Your task to perform on an android device: Add "bose soundsport free" to the cart on bestbuy.com, then select checkout. Image 0: 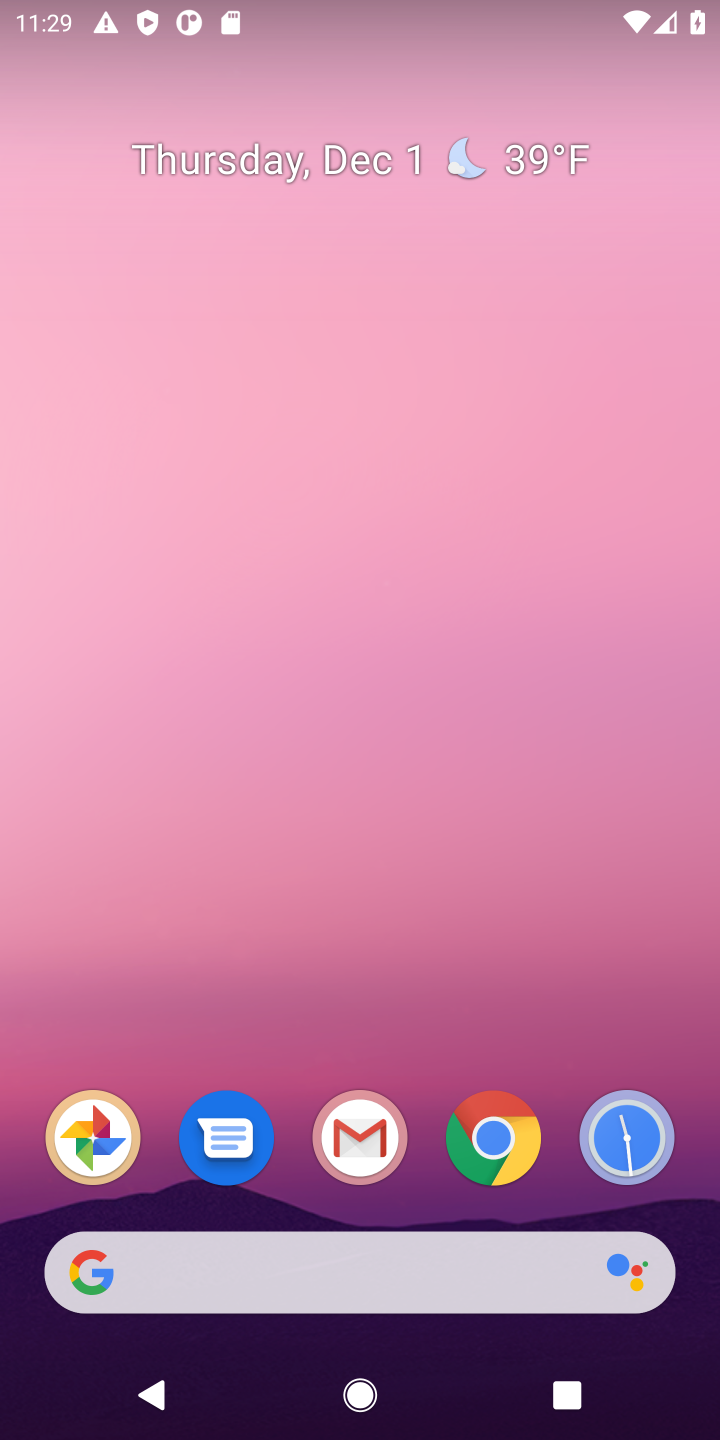
Step 0: drag from (407, 760) to (660, 787)
Your task to perform on an android device: Add "bose soundsport free" to the cart on bestbuy.com, then select checkout. Image 1: 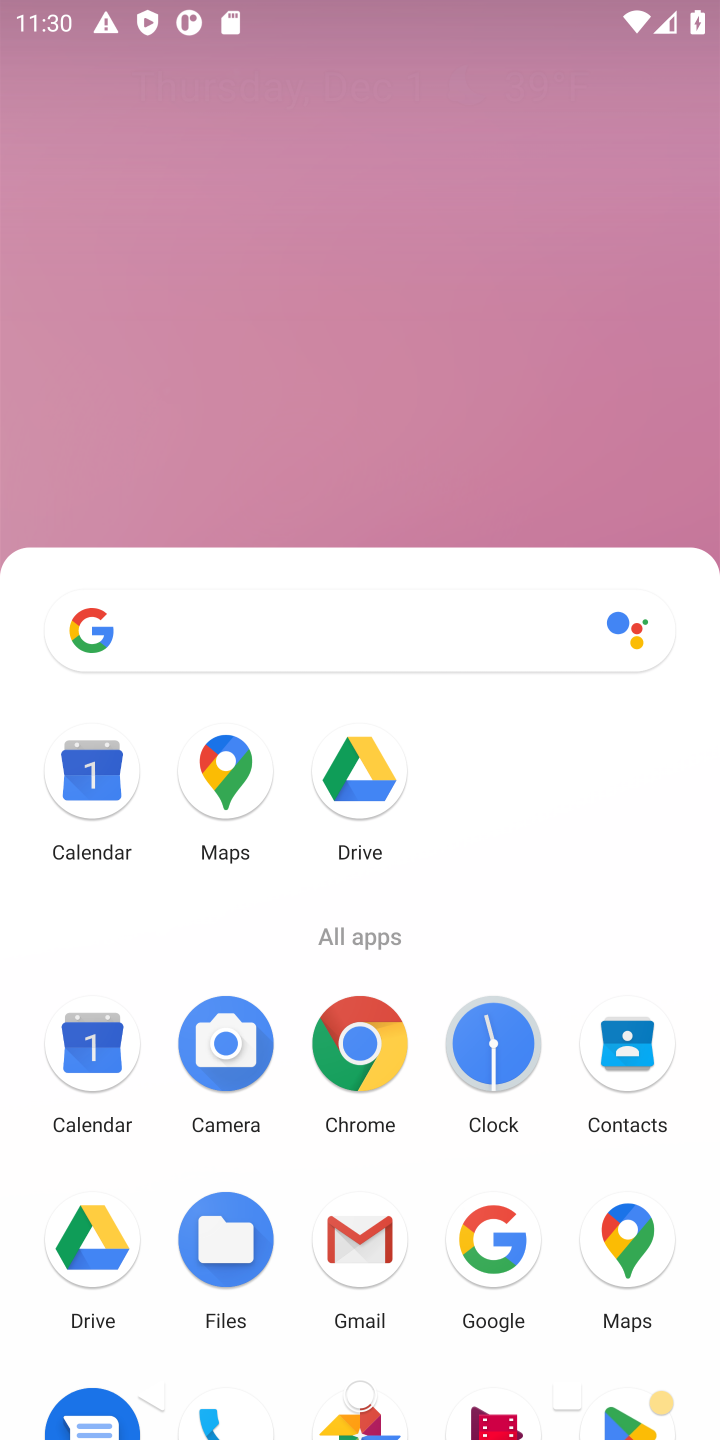
Step 1: drag from (473, 956) to (487, 385)
Your task to perform on an android device: Add "bose soundsport free" to the cart on bestbuy.com, then select checkout. Image 2: 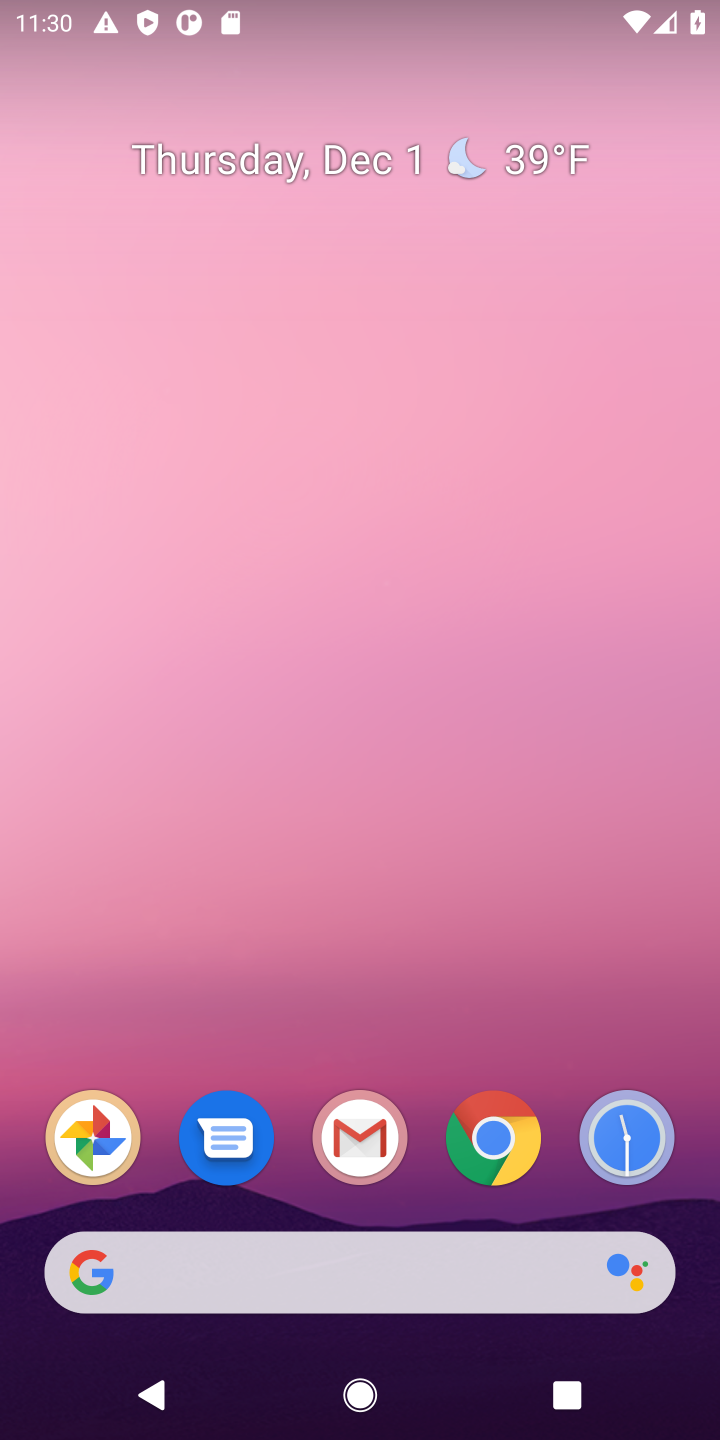
Step 2: drag from (424, 1184) to (454, 134)
Your task to perform on an android device: Add "bose soundsport free" to the cart on bestbuy.com, then select checkout. Image 3: 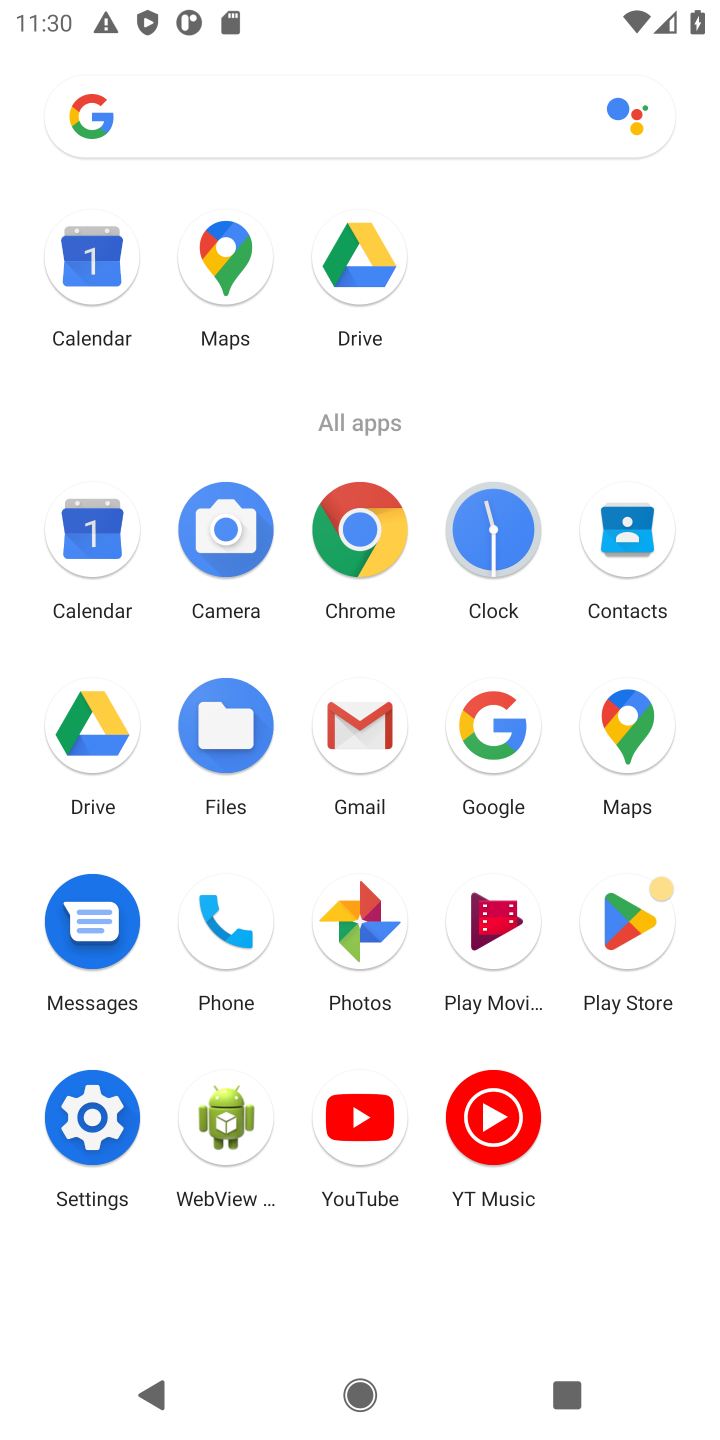
Step 3: click (452, 756)
Your task to perform on an android device: Add "bose soundsport free" to the cart on bestbuy.com, then select checkout. Image 4: 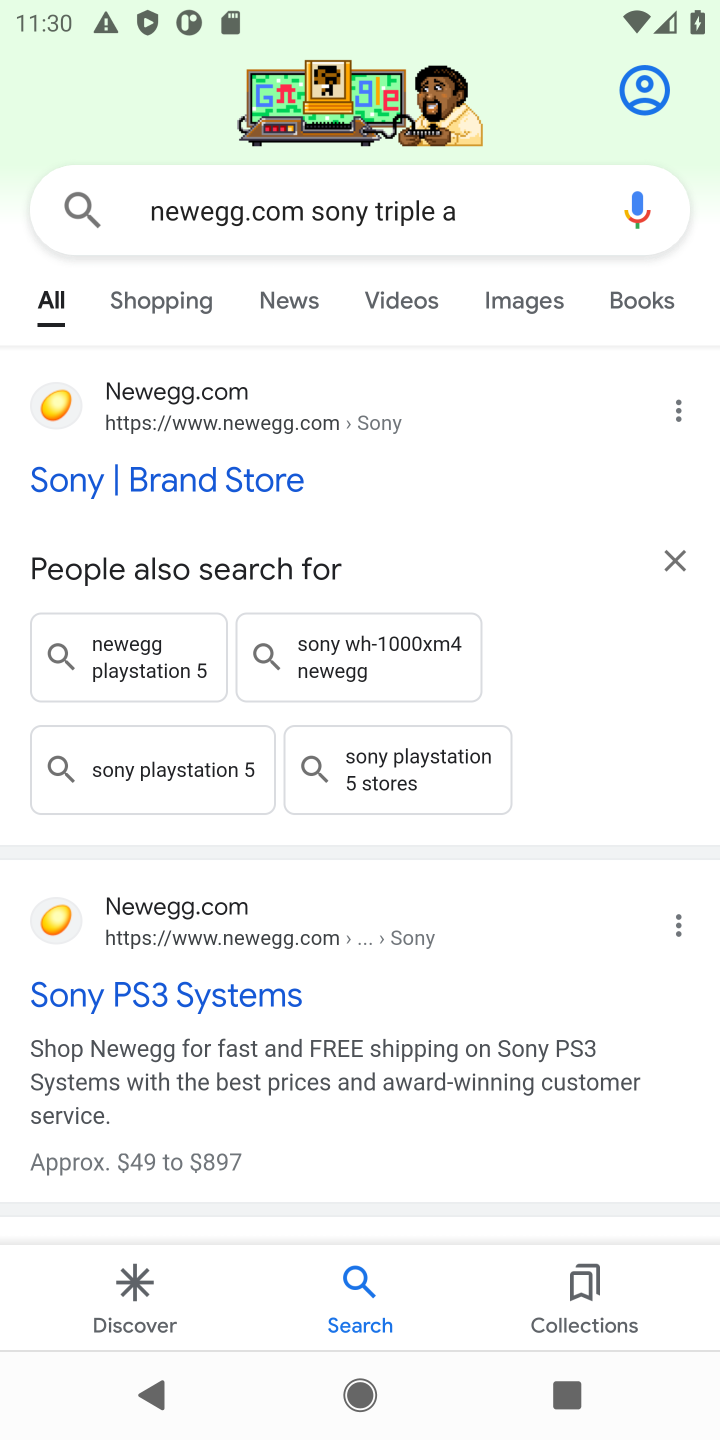
Step 4: click (528, 239)
Your task to perform on an android device: Add "bose soundsport free" to the cart on bestbuy.com, then select checkout. Image 5: 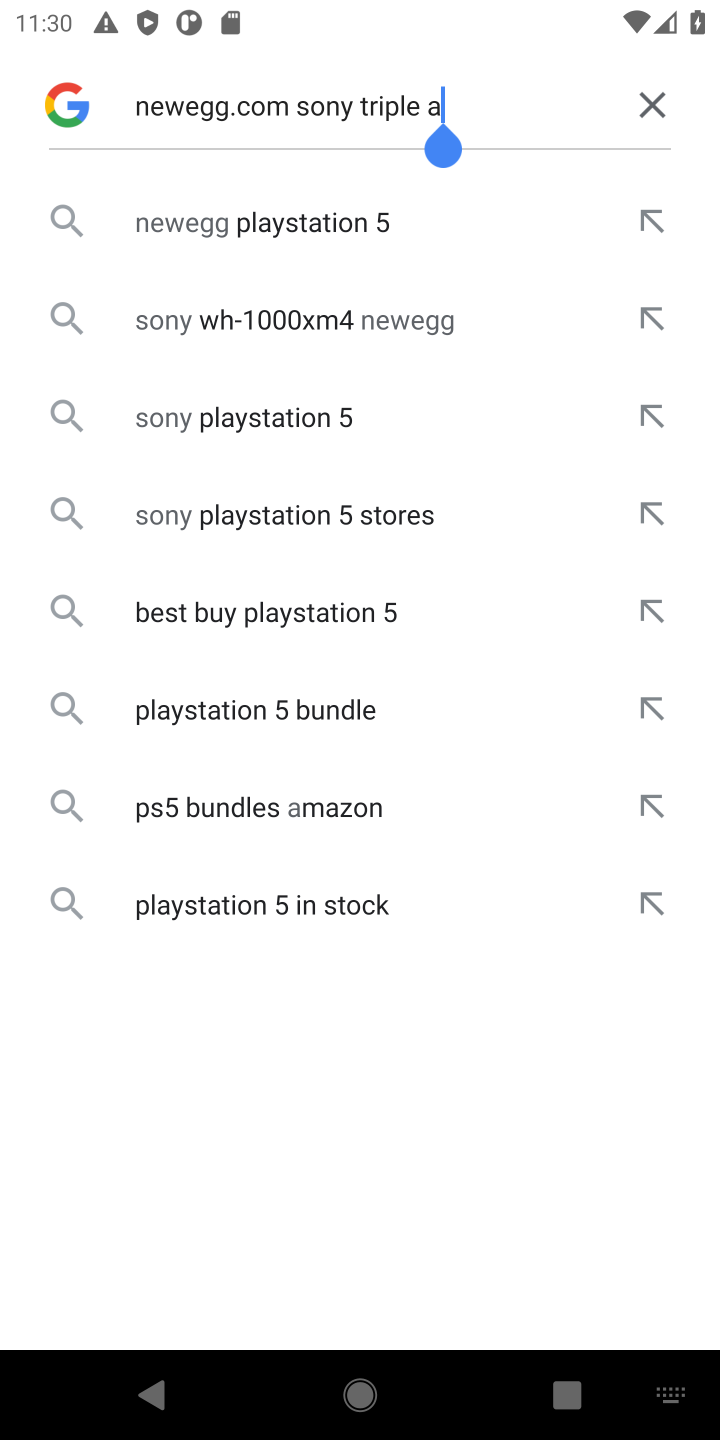
Step 5: click (654, 91)
Your task to perform on an android device: Add "bose soundsport free" to the cart on bestbuy.com, then select checkout. Image 6: 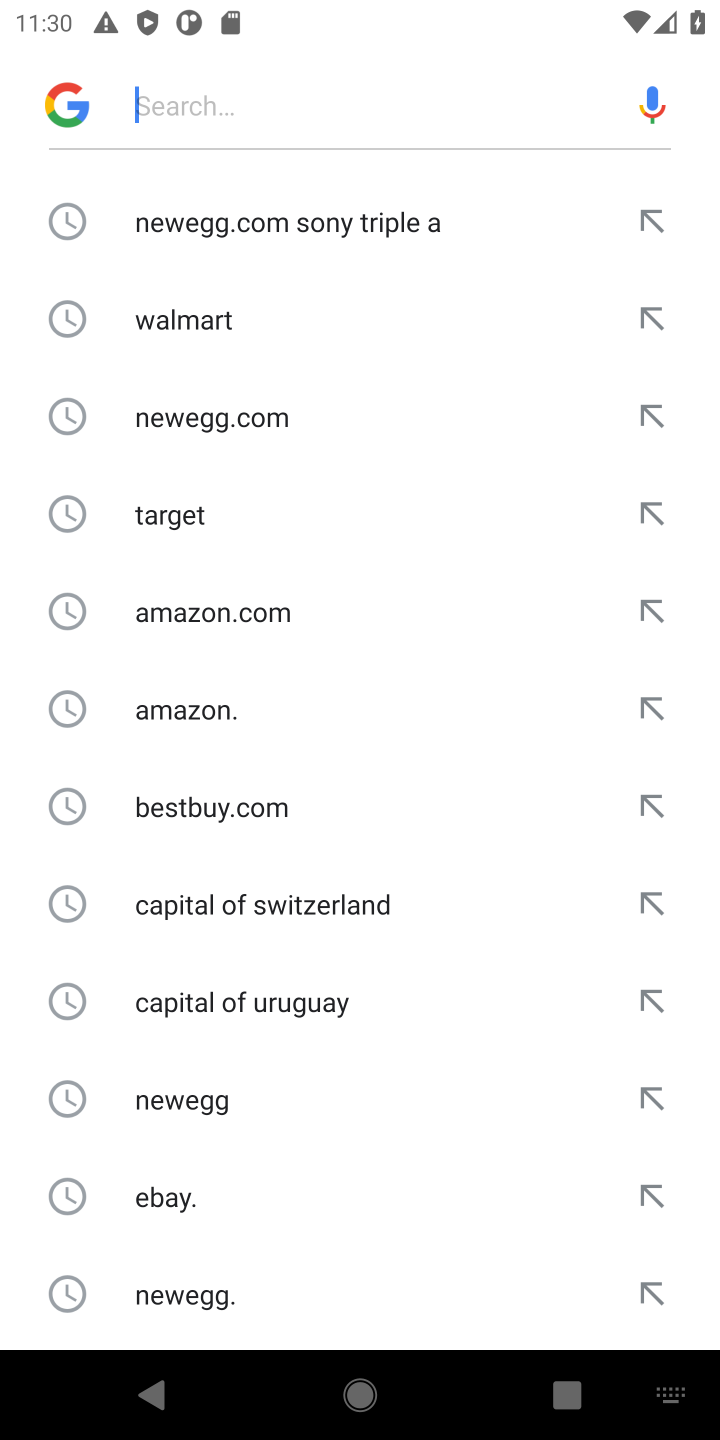
Step 6: type "bestbuy.com"
Your task to perform on an android device: Add "bose soundsport free" to the cart on bestbuy.com, then select checkout. Image 7: 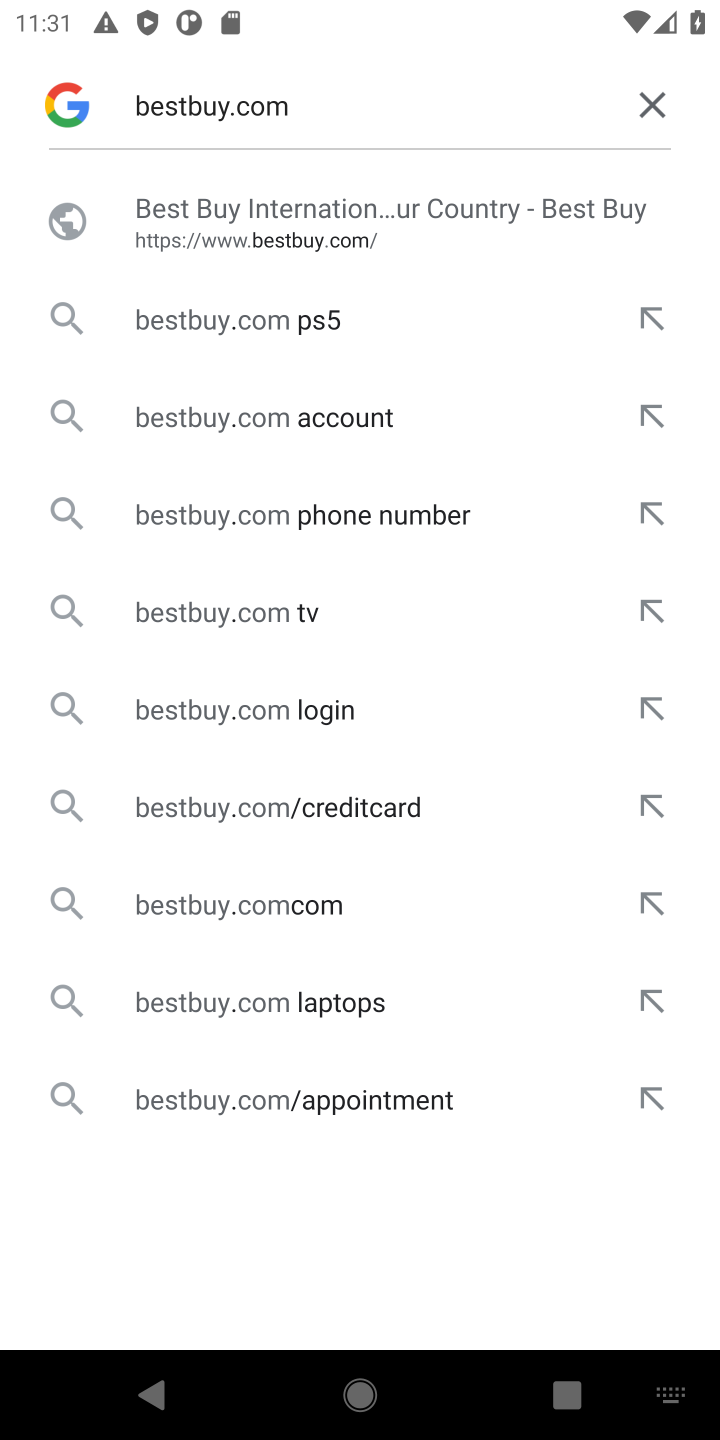
Step 7: click (392, 244)
Your task to perform on an android device: Add "bose soundsport free" to the cart on bestbuy.com, then select checkout. Image 8: 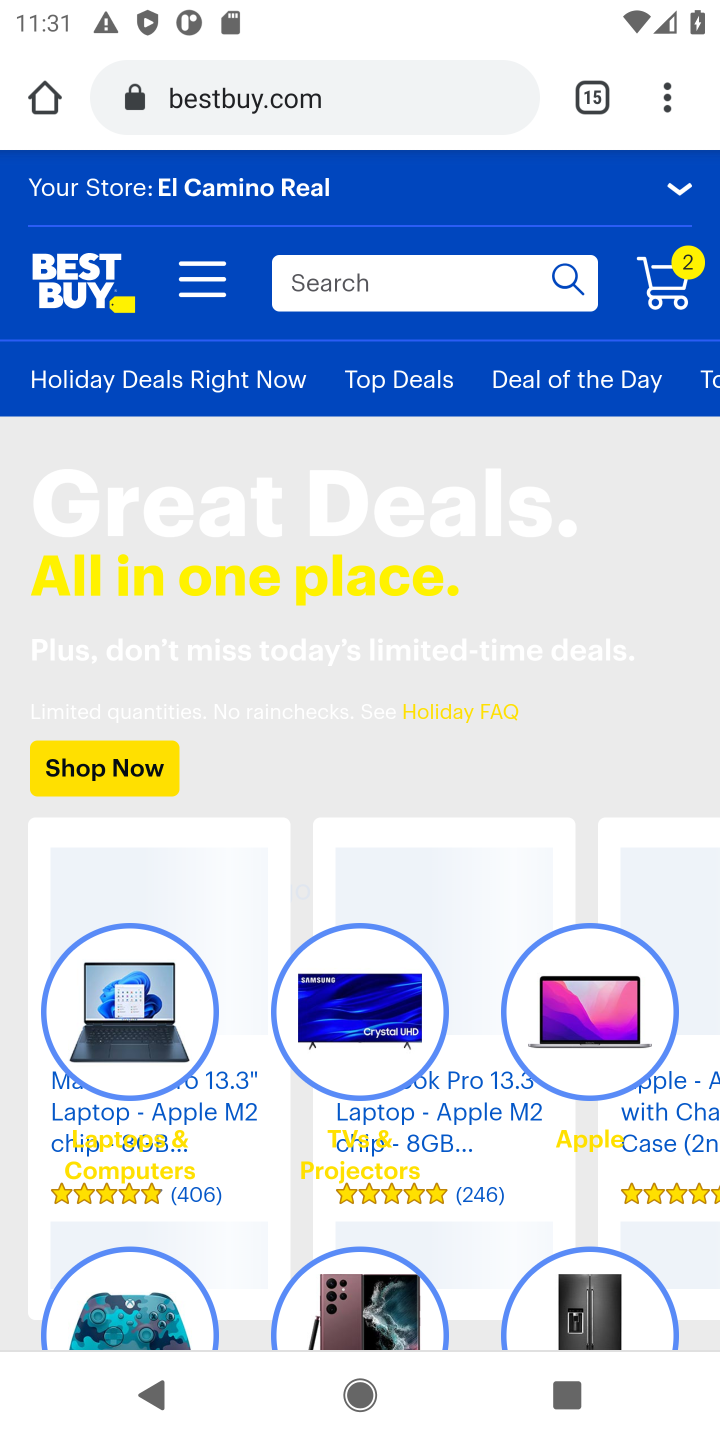
Step 8: click (682, 288)
Your task to perform on an android device: Add "bose soundsport free" to the cart on bestbuy.com, then select checkout. Image 9: 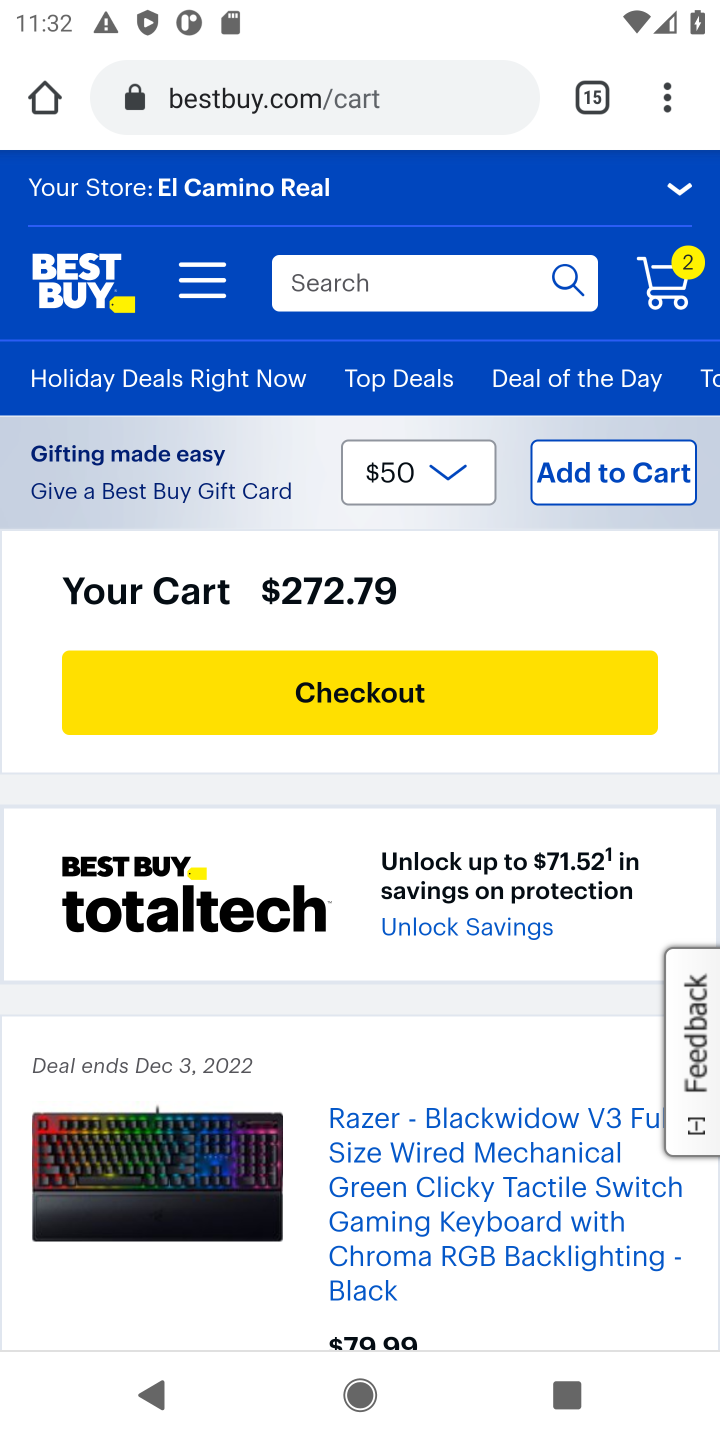
Step 9: click (319, 283)
Your task to perform on an android device: Add "bose soundsport free" to the cart on bestbuy.com, then select checkout. Image 10: 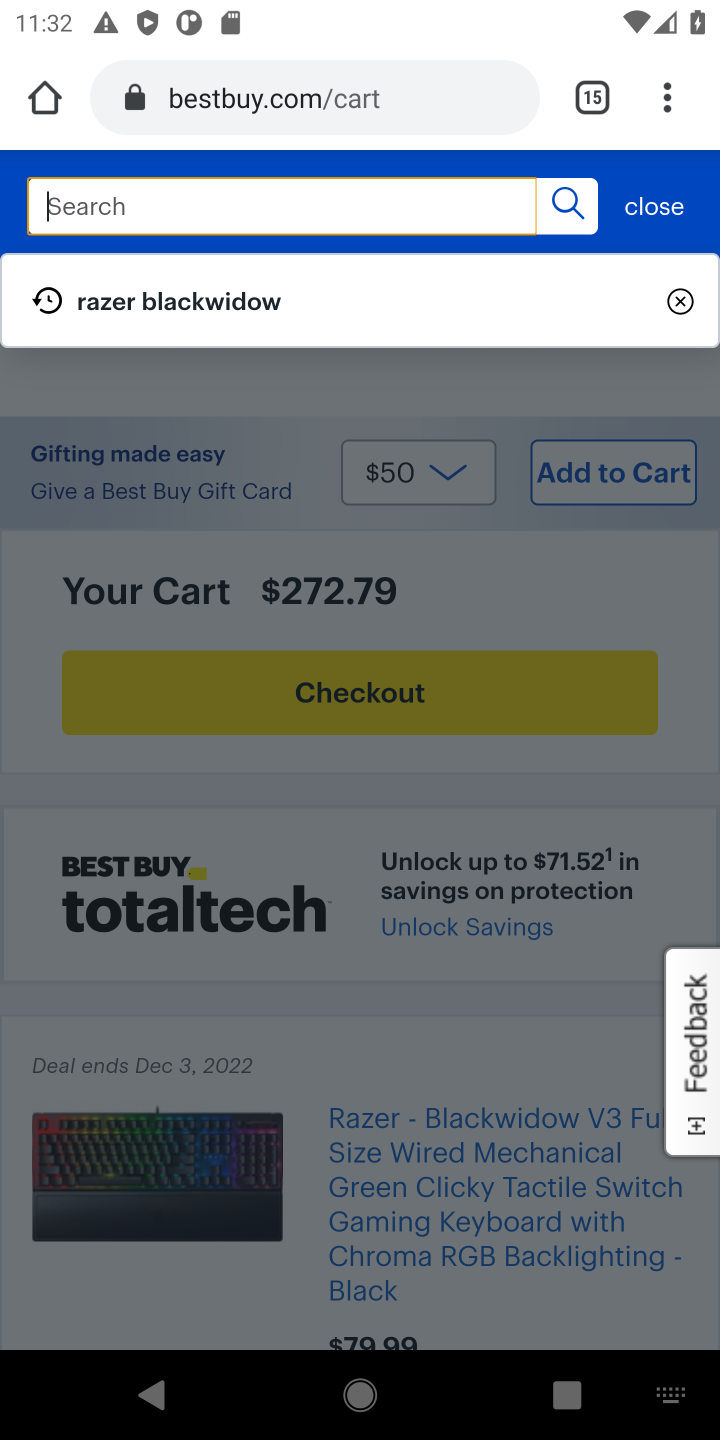
Step 10: type "bose soundsport free"
Your task to perform on an android device: Add "bose soundsport free" to the cart on bestbuy.com, then select checkout. Image 11: 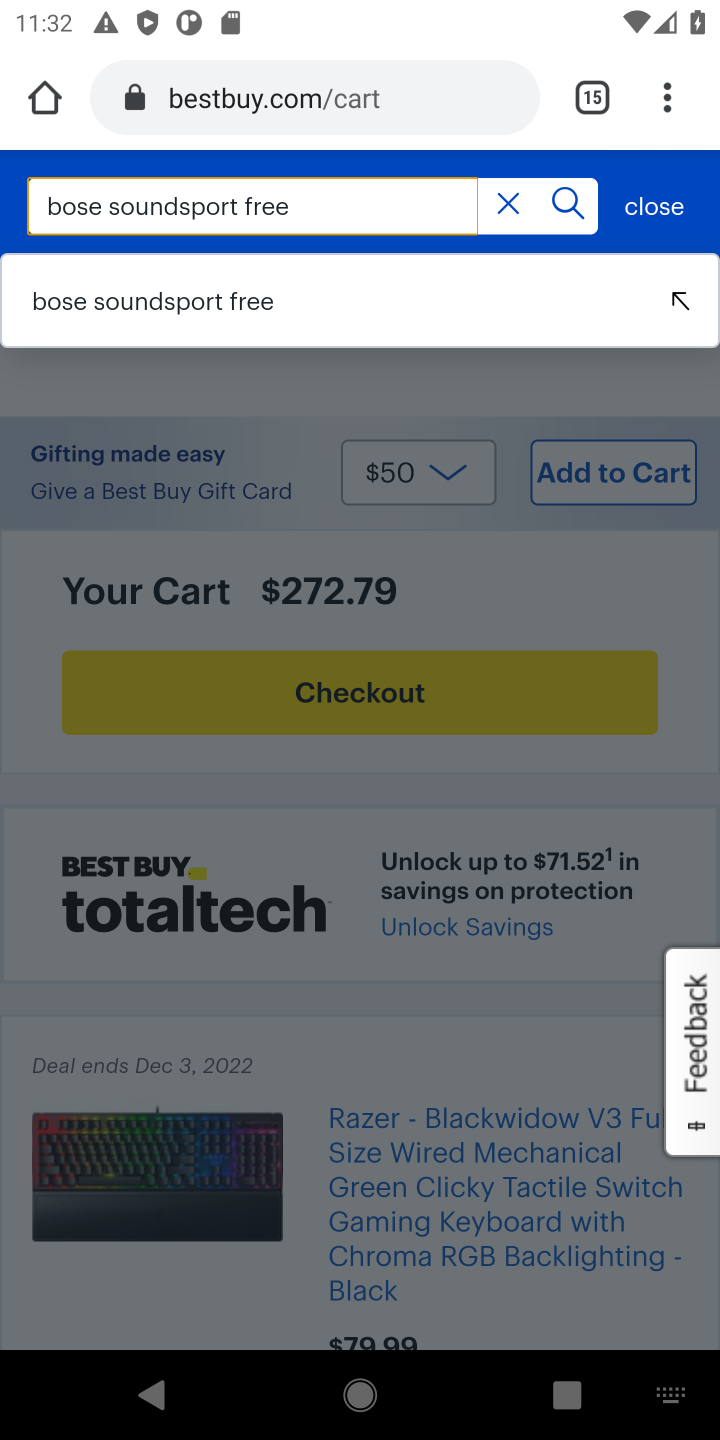
Step 11: click (575, 201)
Your task to perform on an android device: Add "bose soundsport free" to the cart on bestbuy.com, then select checkout. Image 12: 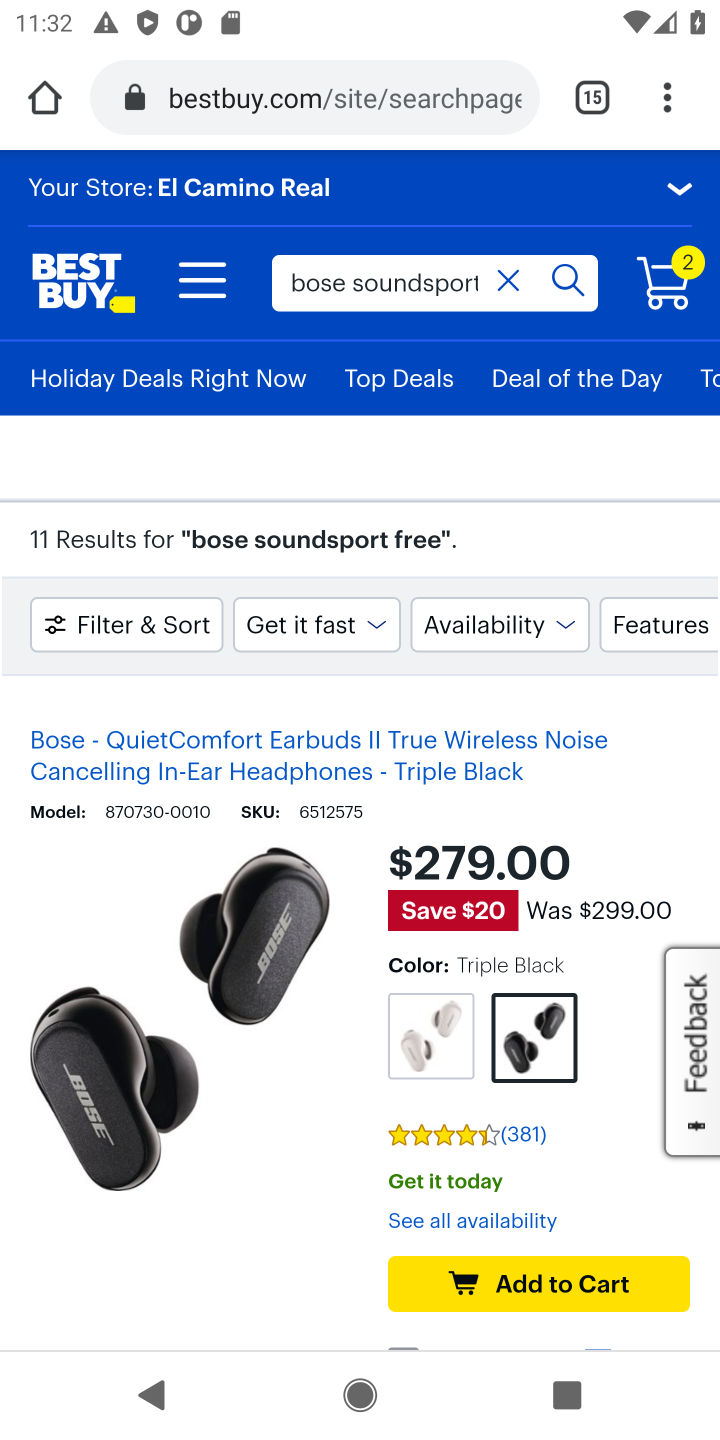
Step 12: task complete